Your task to perform on an android device: turn off sleep mode Image 0: 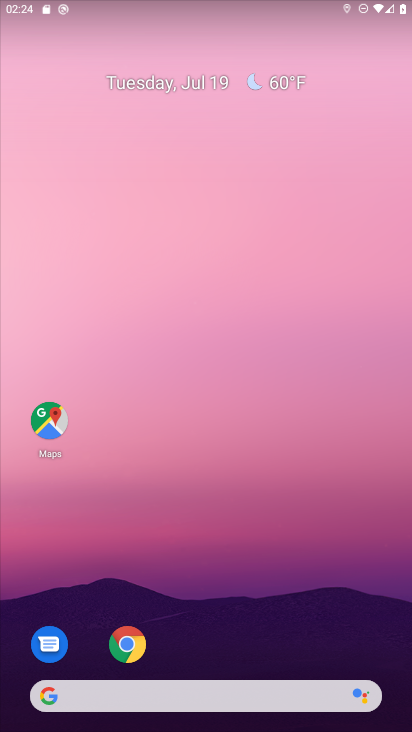
Step 0: drag from (196, 674) to (181, 169)
Your task to perform on an android device: turn off sleep mode Image 1: 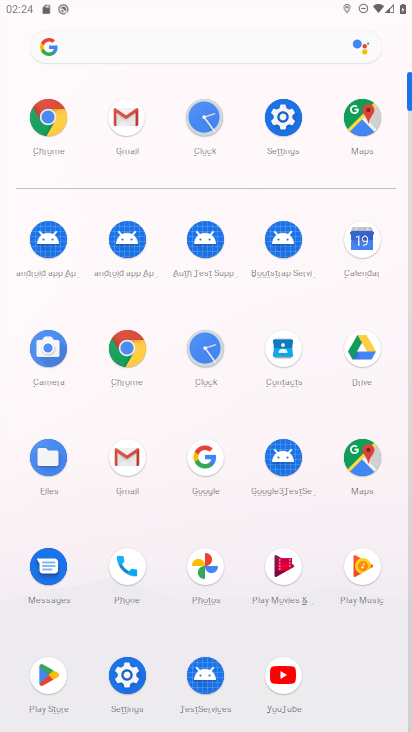
Step 1: click (283, 109)
Your task to perform on an android device: turn off sleep mode Image 2: 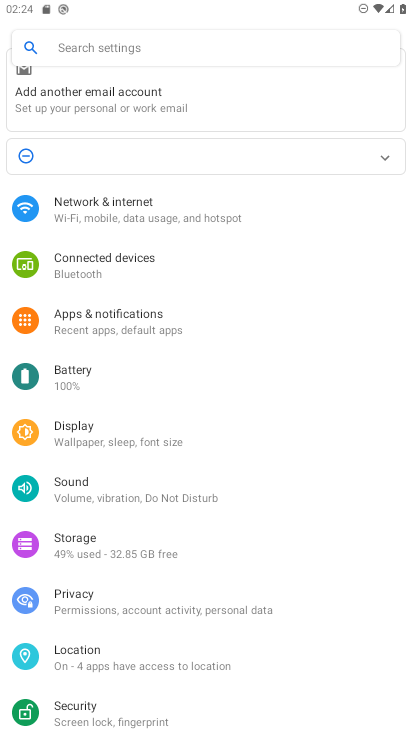
Step 2: click (46, 420)
Your task to perform on an android device: turn off sleep mode Image 3: 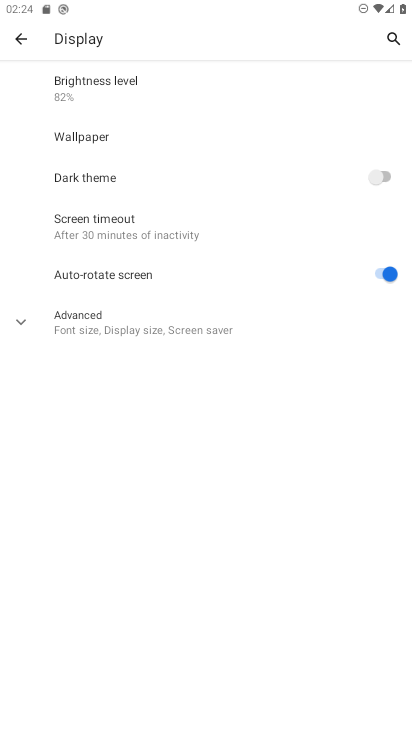
Step 3: task complete